Your task to perform on an android device: What's on my calendar tomorrow? Image 0: 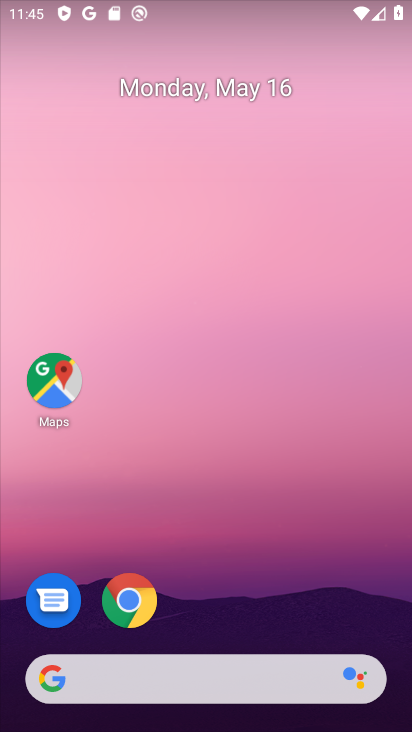
Step 0: drag from (256, 602) to (214, 36)
Your task to perform on an android device: What's on my calendar tomorrow? Image 1: 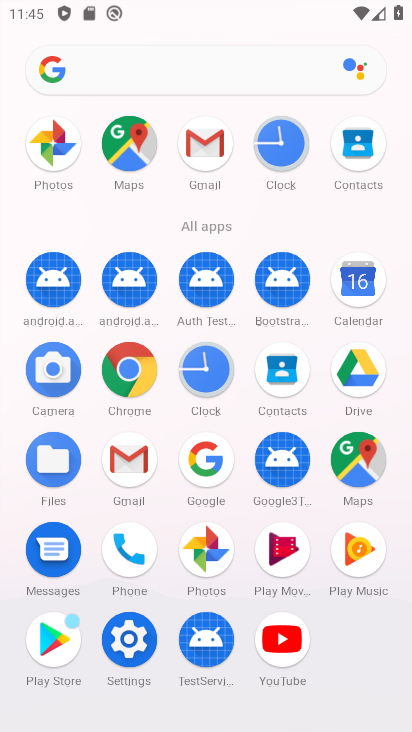
Step 1: click (367, 294)
Your task to perform on an android device: What's on my calendar tomorrow? Image 2: 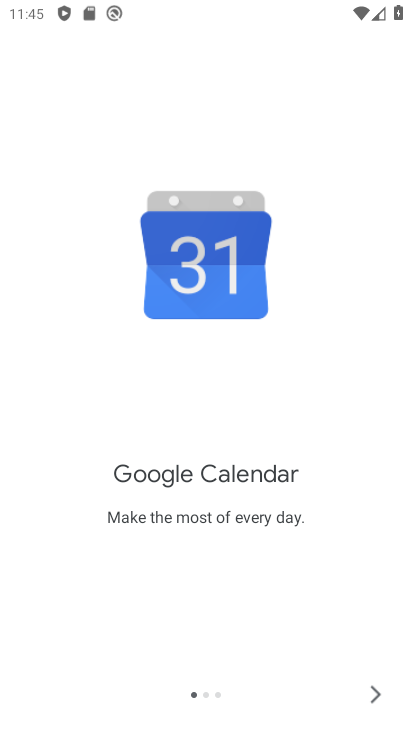
Step 2: click (376, 693)
Your task to perform on an android device: What's on my calendar tomorrow? Image 3: 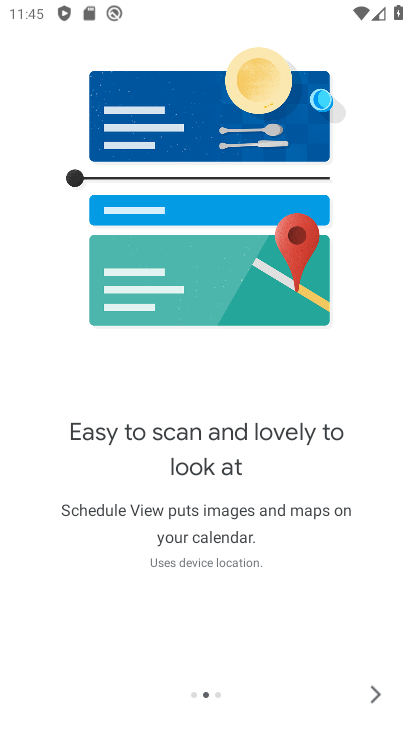
Step 3: click (378, 693)
Your task to perform on an android device: What's on my calendar tomorrow? Image 4: 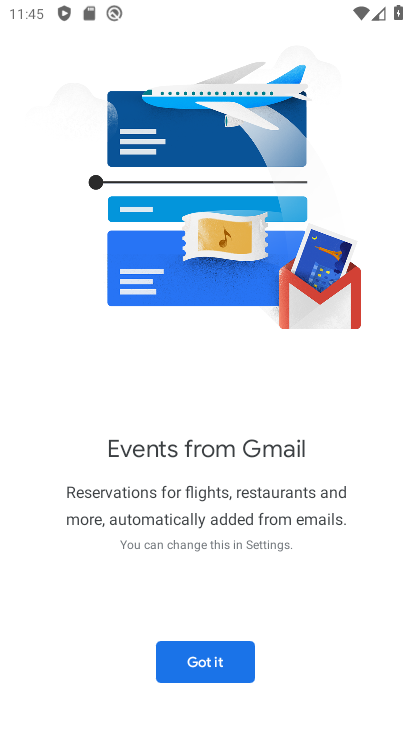
Step 4: click (244, 667)
Your task to perform on an android device: What's on my calendar tomorrow? Image 5: 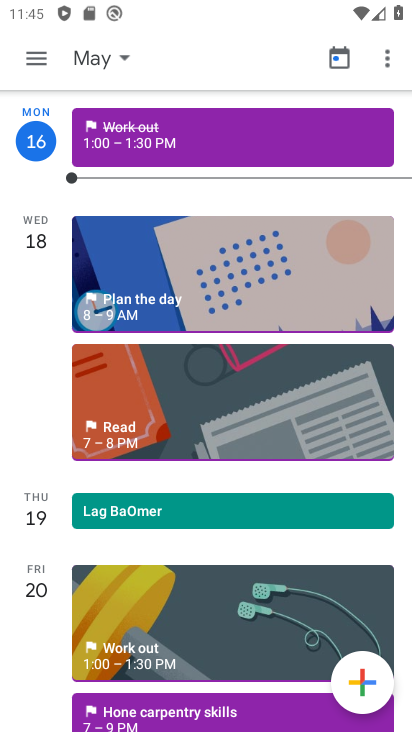
Step 5: click (100, 57)
Your task to perform on an android device: What's on my calendar tomorrow? Image 6: 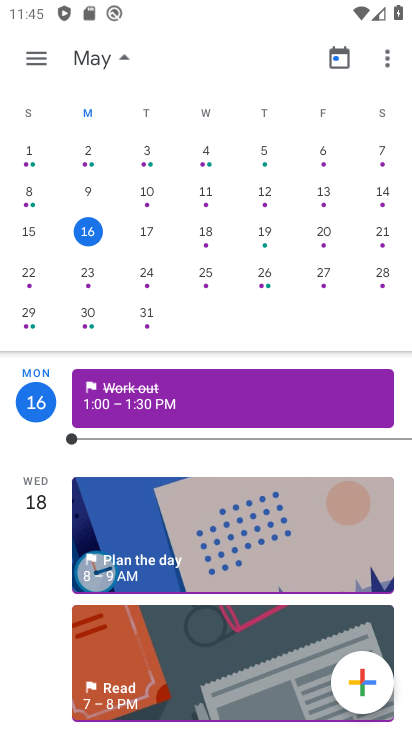
Step 6: click (150, 230)
Your task to perform on an android device: What's on my calendar tomorrow? Image 7: 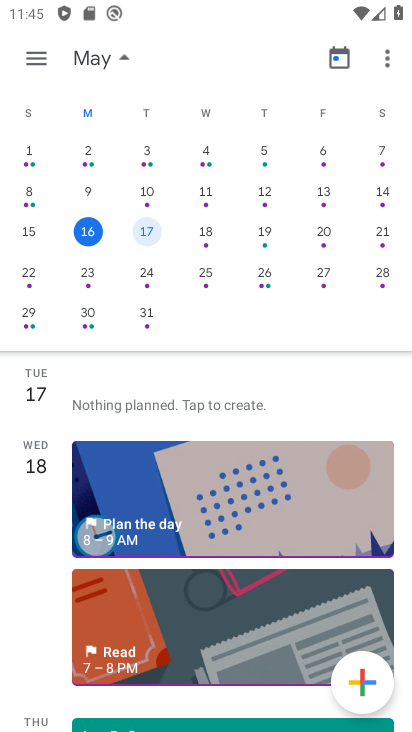
Step 7: task complete